Your task to perform on an android device: Go to Yahoo.com Image 0: 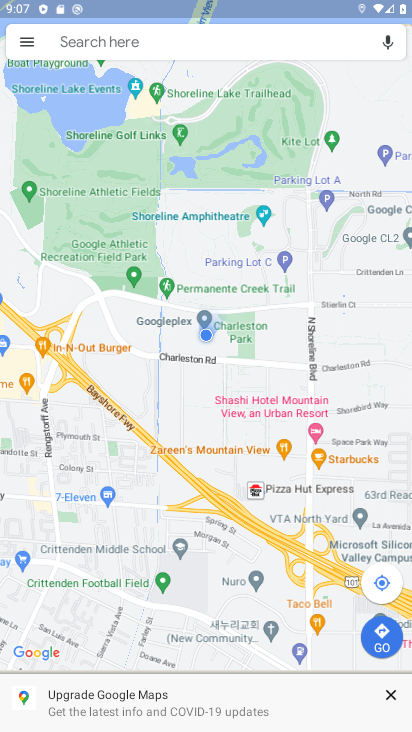
Step 0: press home button
Your task to perform on an android device: Go to Yahoo.com Image 1: 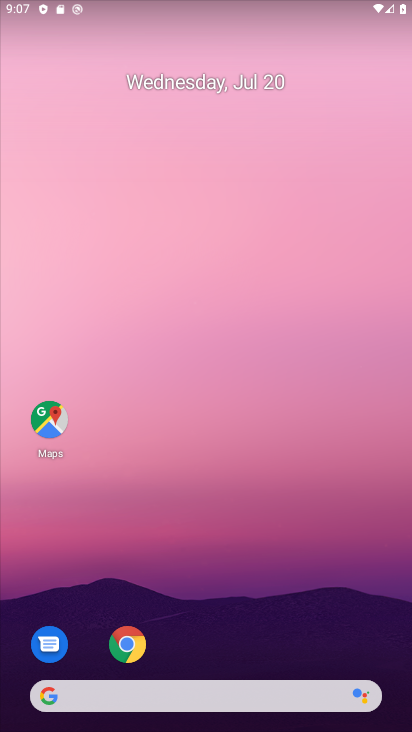
Step 1: click (97, 691)
Your task to perform on an android device: Go to Yahoo.com Image 2: 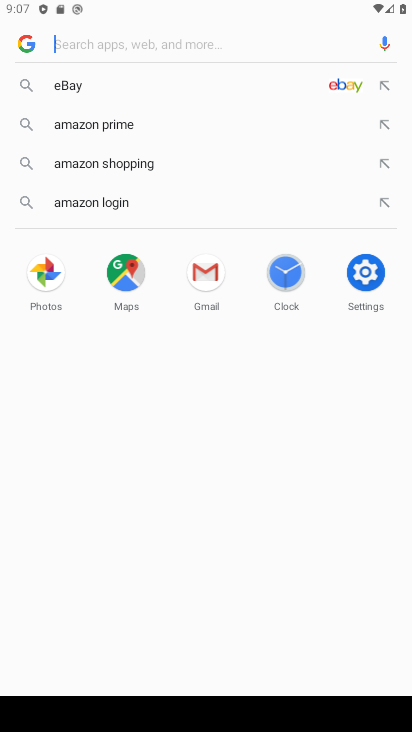
Step 2: click (63, 33)
Your task to perform on an android device: Go to Yahoo.com Image 3: 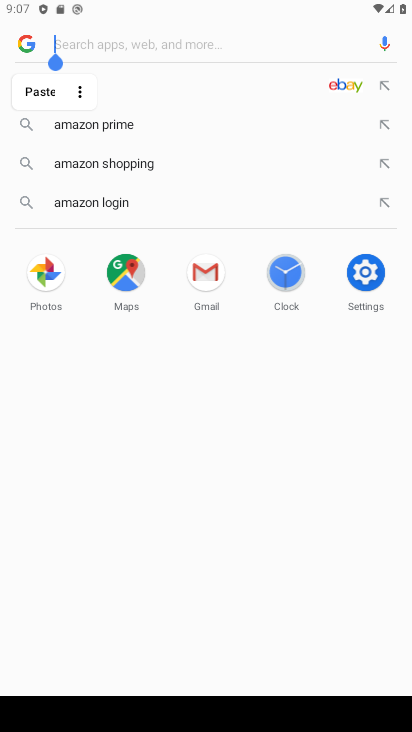
Step 3: type "Yahoo.com"
Your task to perform on an android device: Go to Yahoo.com Image 4: 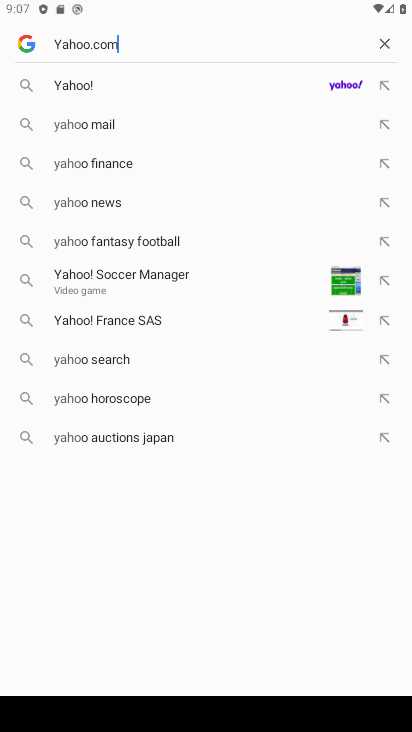
Step 4: type ""
Your task to perform on an android device: Go to Yahoo.com Image 5: 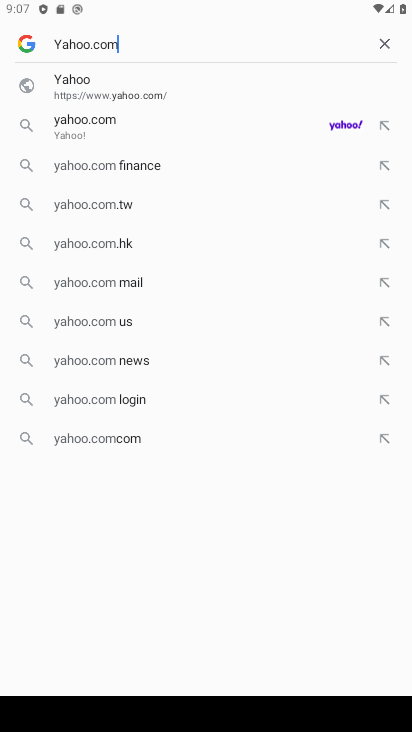
Step 5: press enter
Your task to perform on an android device: Go to Yahoo.com Image 6: 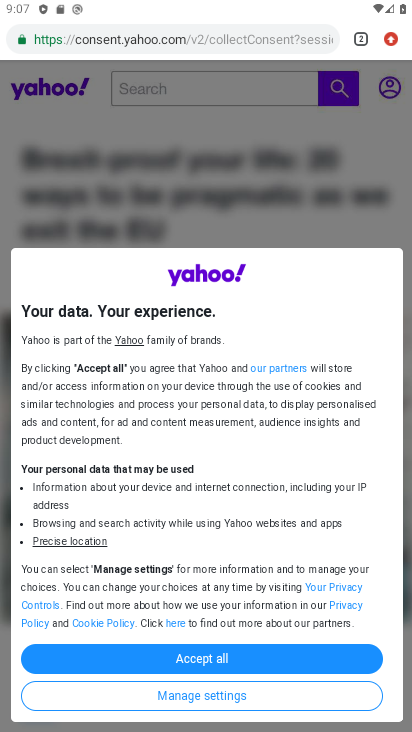
Step 6: task complete